Your task to perform on an android device: Check the news Image 0: 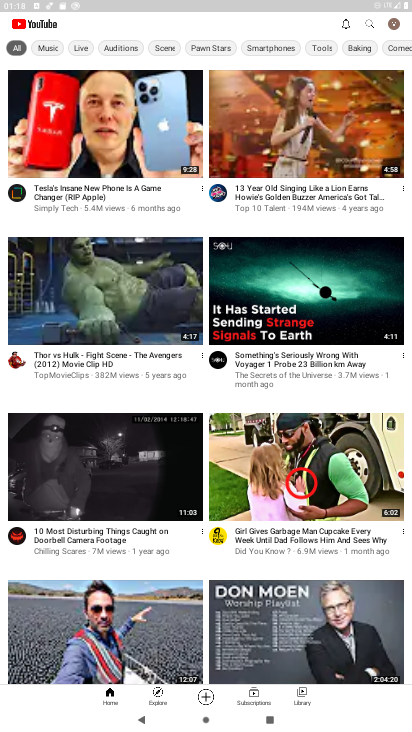
Step 0: press home button
Your task to perform on an android device: Check the news Image 1: 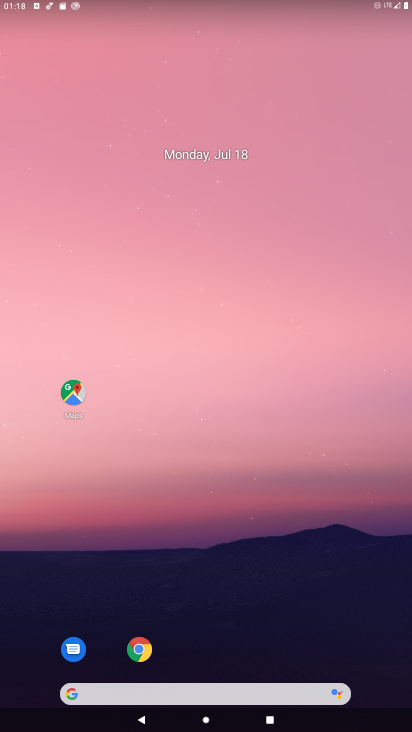
Step 1: task complete